Your task to perform on an android device: toggle sleep mode Image 0: 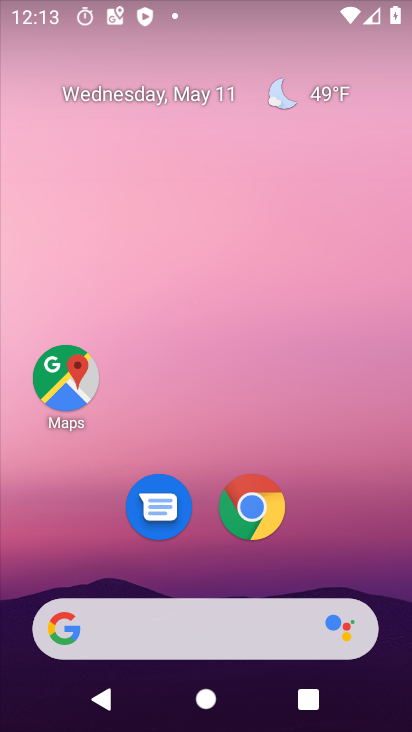
Step 0: drag from (216, 557) to (222, 52)
Your task to perform on an android device: toggle sleep mode Image 1: 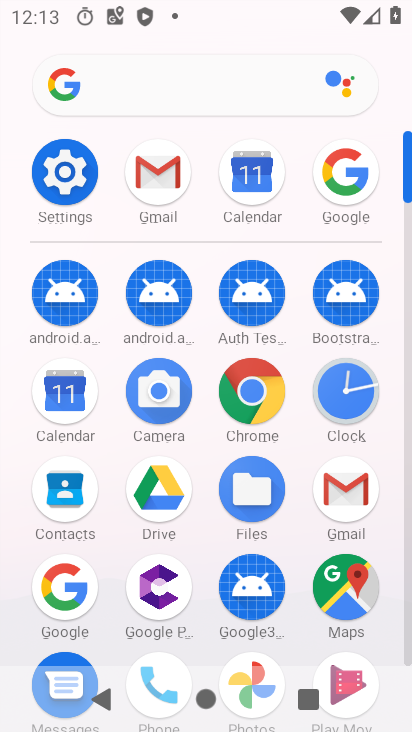
Step 1: click (62, 181)
Your task to perform on an android device: toggle sleep mode Image 2: 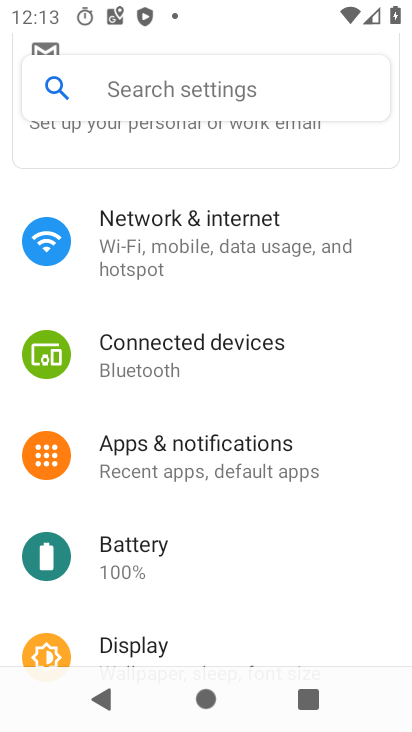
Step 2: drag from (265, 520) to (282, 106)
Your task to perform on an android device: toggle sleep mode Image 3: 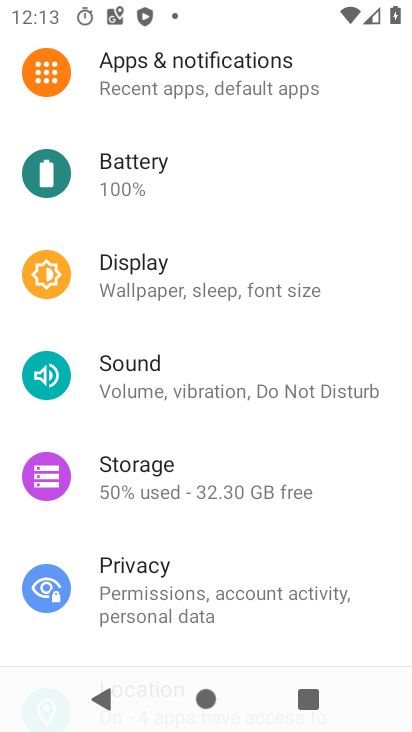
Step 3: click (159, 283)
Your task to perform on an android device: toggle sleep mode Image 4: 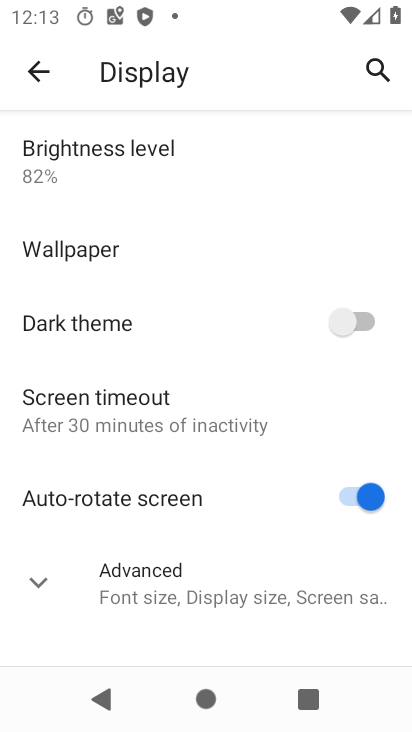
Step 4: click (162, 424)
Your task to perform on an android device: toggle sleep mode Image 5: 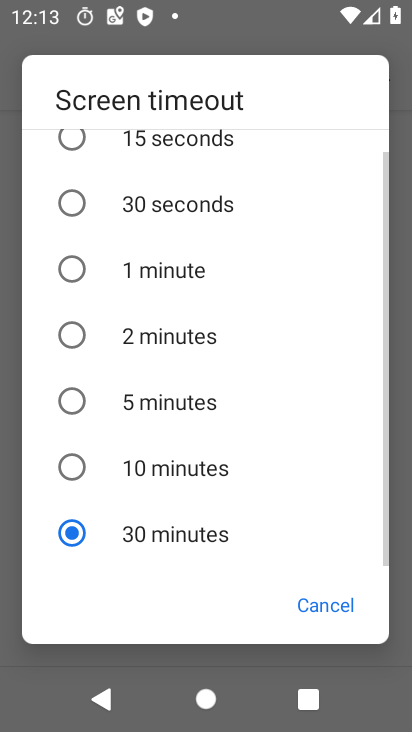
Step 5: click (72, 337)
Your task to perform on an android device: toggle sleep mode Image 6: 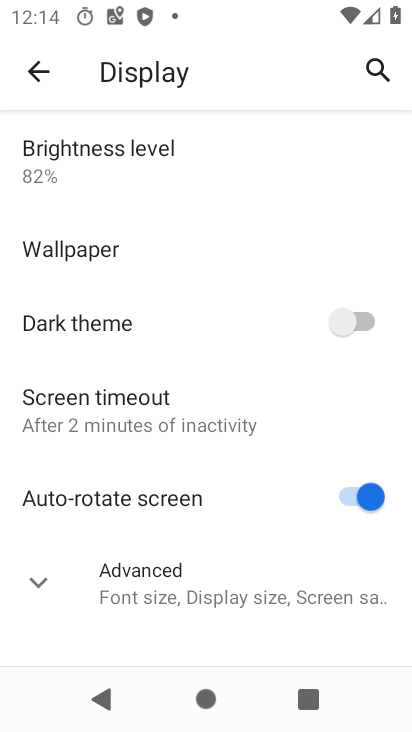
Step 6: task complete